Your task to perform on an android device: turn notification dots on Image 0: 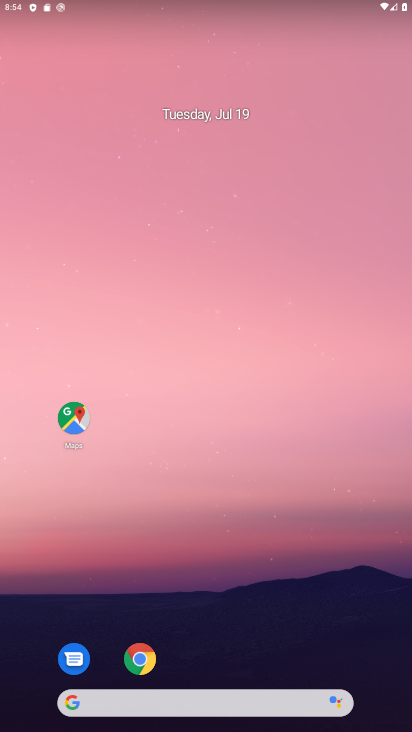
Step 0: drag from (226, 509) to (271, 217)
Your task to perform on an android device: turn notification dots on Image 1: 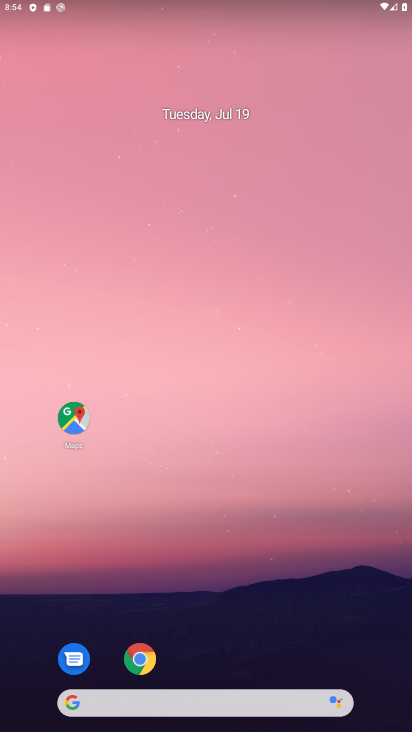
Step 1: drag from (196, 669) to (318, 16)
Your task to perform on an android device: turn notification dots on Image 2: 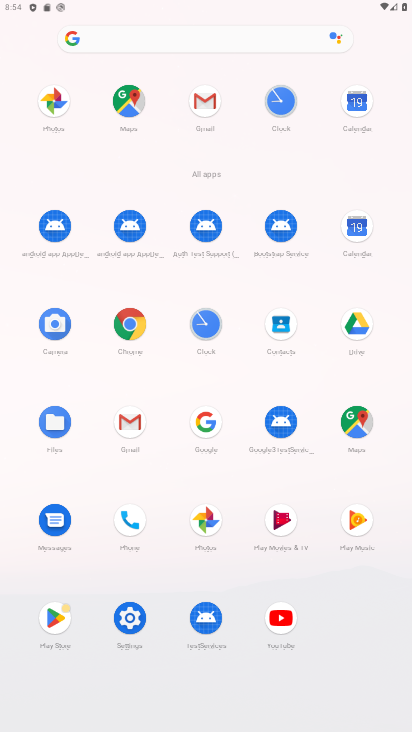
Step 2: click (106, 599)
Your task to perform on an android device: turn notification dots on Image 3: 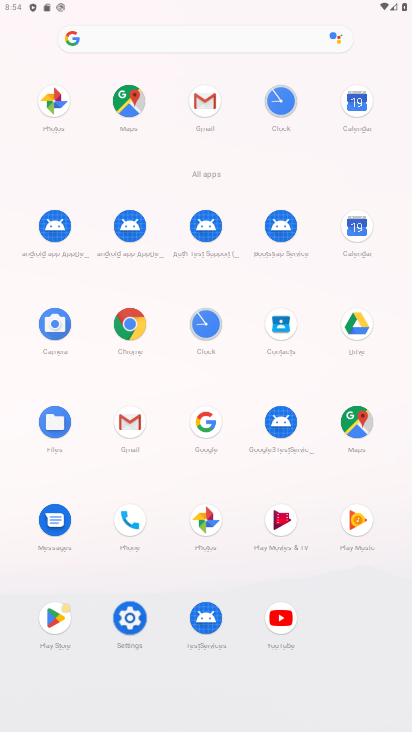
Step 3: click (125, 608)
Your task to perform on an android device: turn notification dots on Image 4: 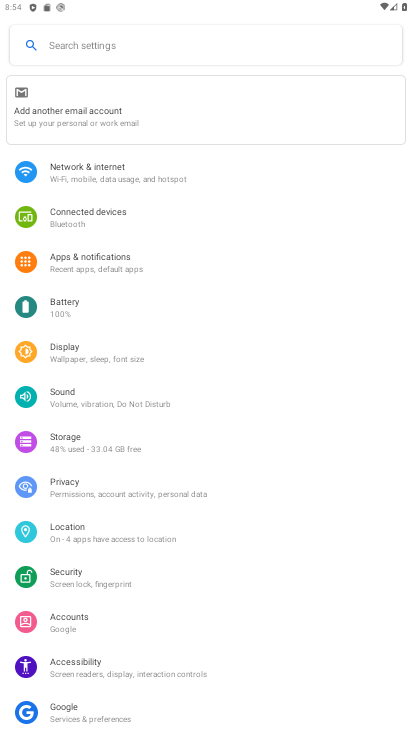
Step 4: drag from (177, 724) to (186, 298)
Your task to perform on an android device: turn notification dots on Image 5: 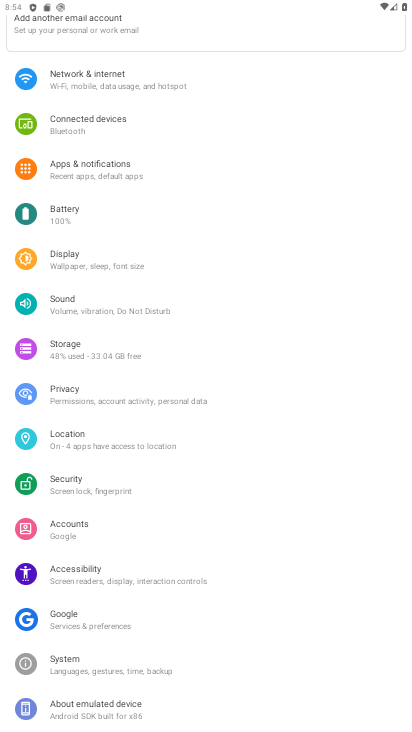
Step 5: click (130, 176)
Your task to perform on an android device: turn notification dots on Image 6: 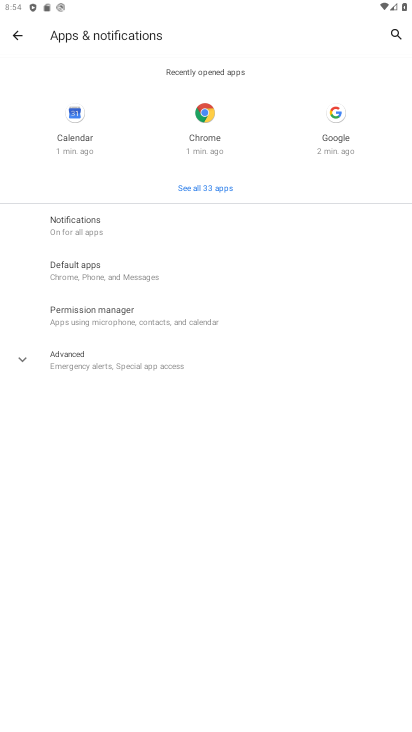
Step 6: click (112, 228)
Your task to perform on an android device: turn notification dots on Image 7: 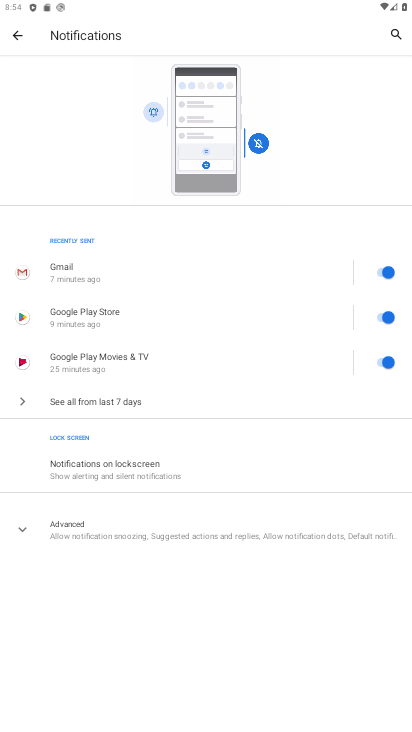
Step 7: click (156, 544)
Your task to perform on an android device: turn notification dots on Image 8: 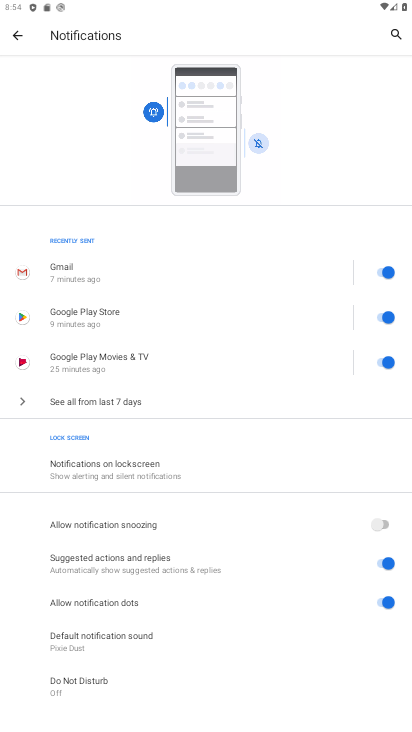
Step 8: task complete